Your task to perform on an android device: Search for seafood restaurants on Google Maps Image 0: 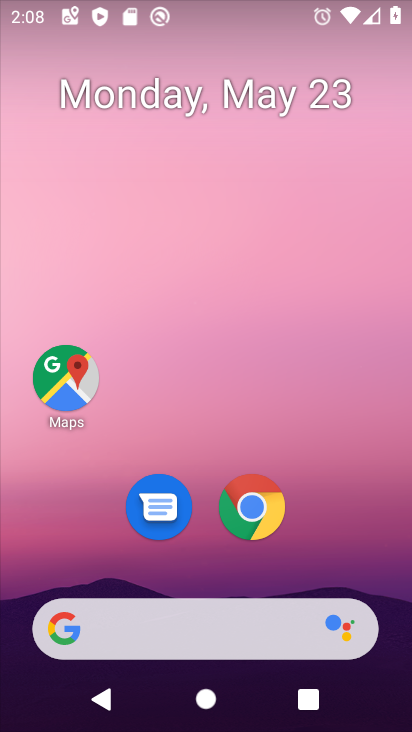
Step 0: drag from (243, 721) to (202, 64)
Your task to perform on an android device: Search for seafood restaurants on Google Maps Image 1: 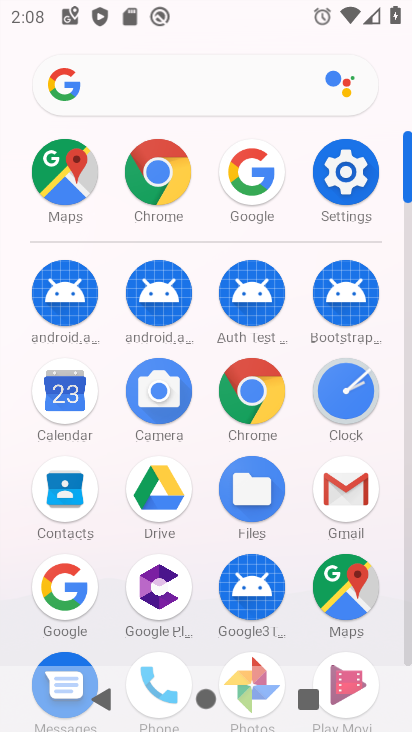
Step 1: click (338, 586)
Your task to perform on an android device: Search for seafood restaurants on Google Maps Image 2: 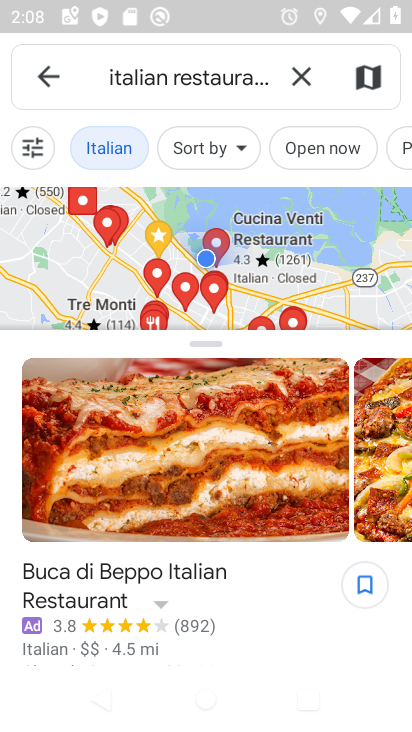
Step 2: task complete